Your task to perform on an android device: Search for flights from San Diego to Seattle Image 0: 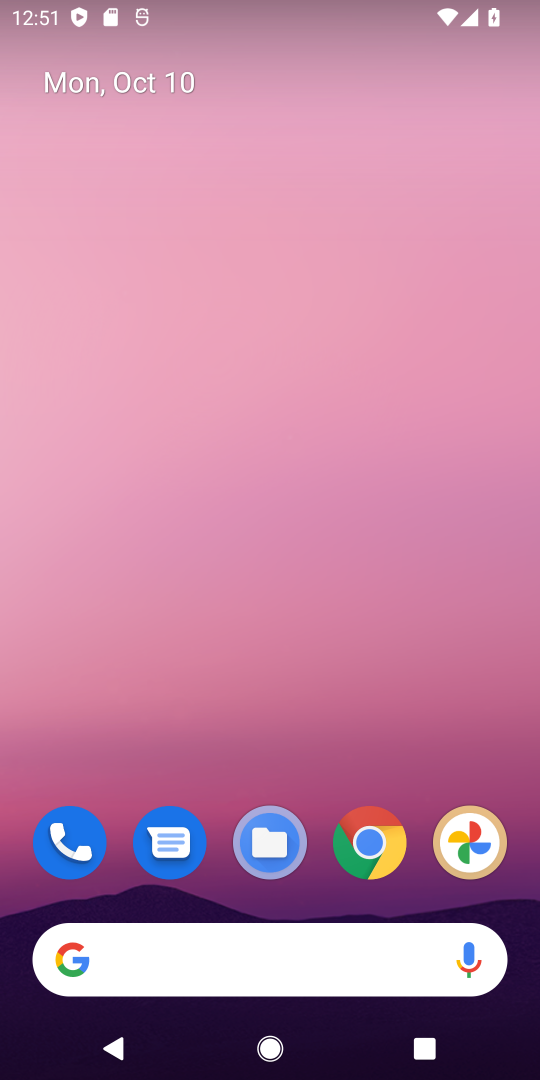
Step 0: click (374, 863)
Your task to perform on an android device: Search for flights from San Diego to Seattle Image 1: 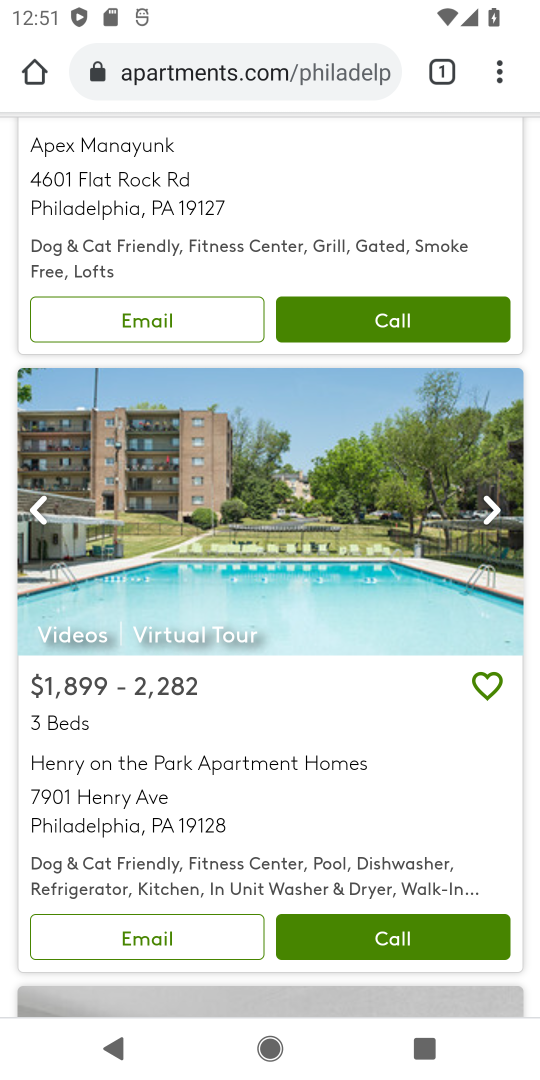
Step 1: click (214, 77)
Your task to perform on an android device: Search for flights from San Diego to Seattle Image 2: 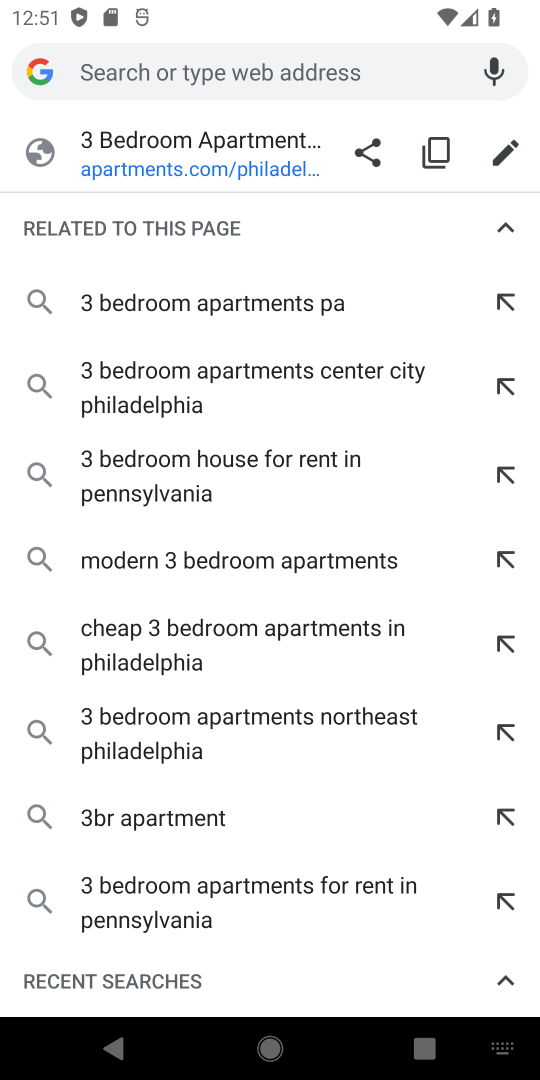
Step 2: type "flights from San Diego to Seattle"
Your task to perform on an android device: Search for flights from San Diego to Seattle Image 3: 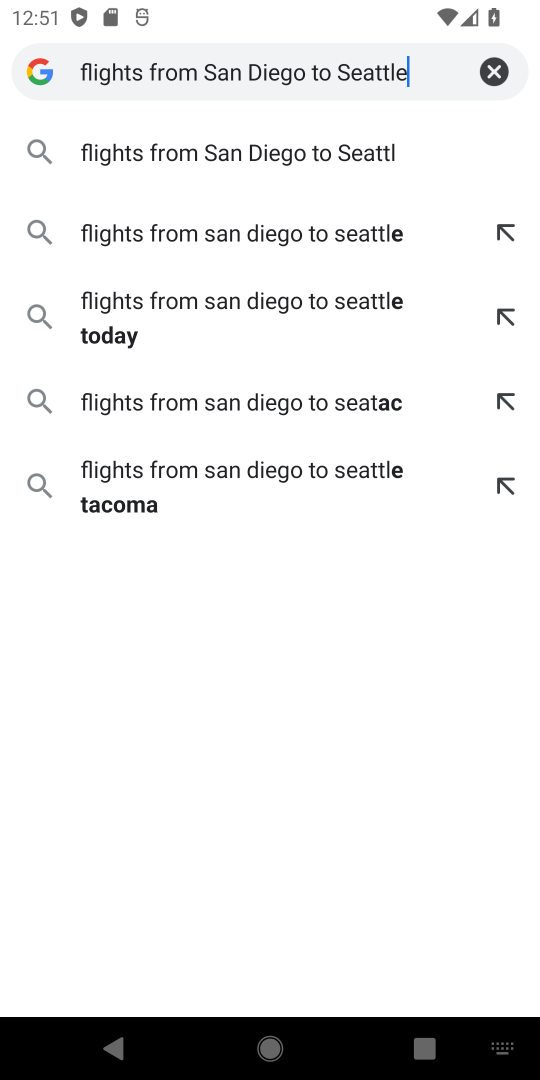
Step 3: type ""
Your task to perform on an android device: Search for flights from San Diego to Seattle Image 4: 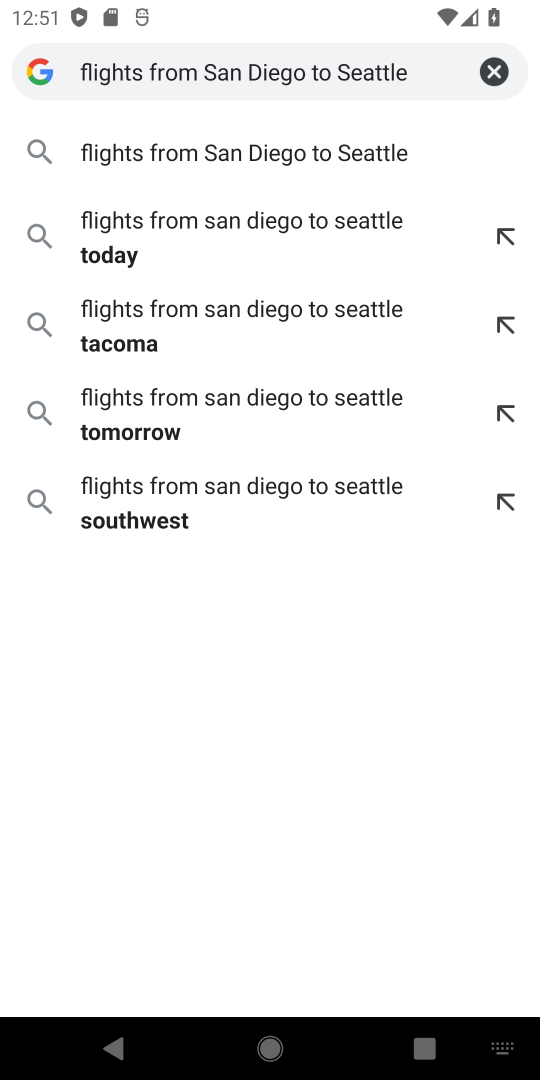
Step 4: press enter
Your task to perform on an android device: Search for flights from San Diego to Seattle Image 5: 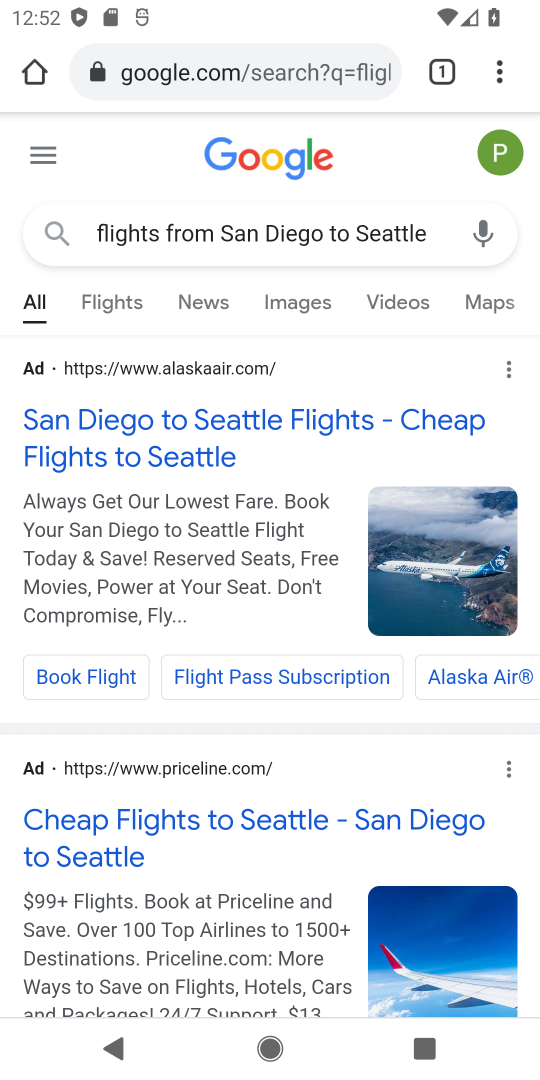
Step 5: drag from (193, 689) to (217, 376)
Your task to perform on an android device: Search for flights from San Diego to Seattle Image 6: 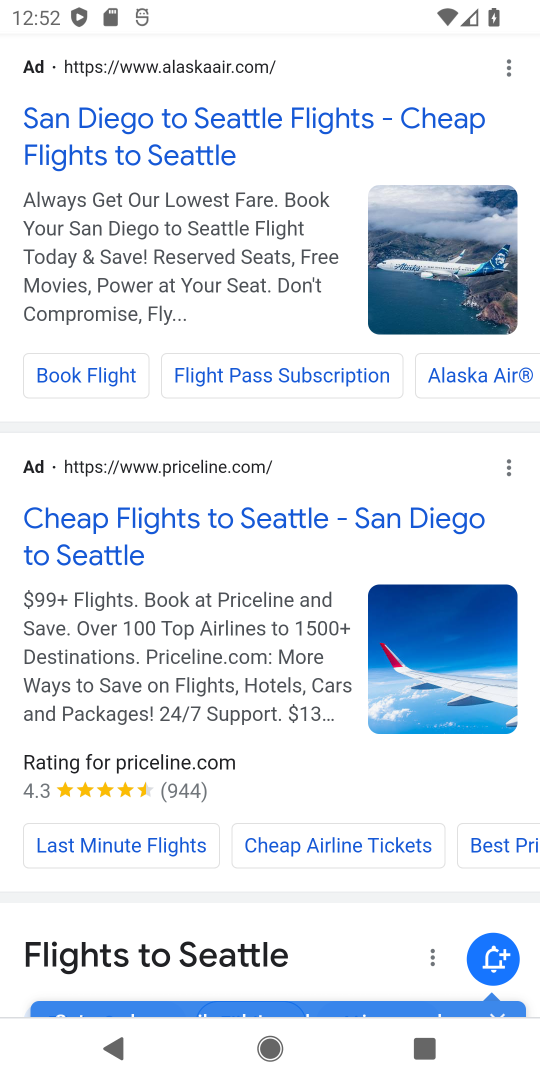
Step 6: drag from (235, 802) to (229, 236)
Your task to perform on an android device: Search for flights from San Diego to Seattle Image 7: 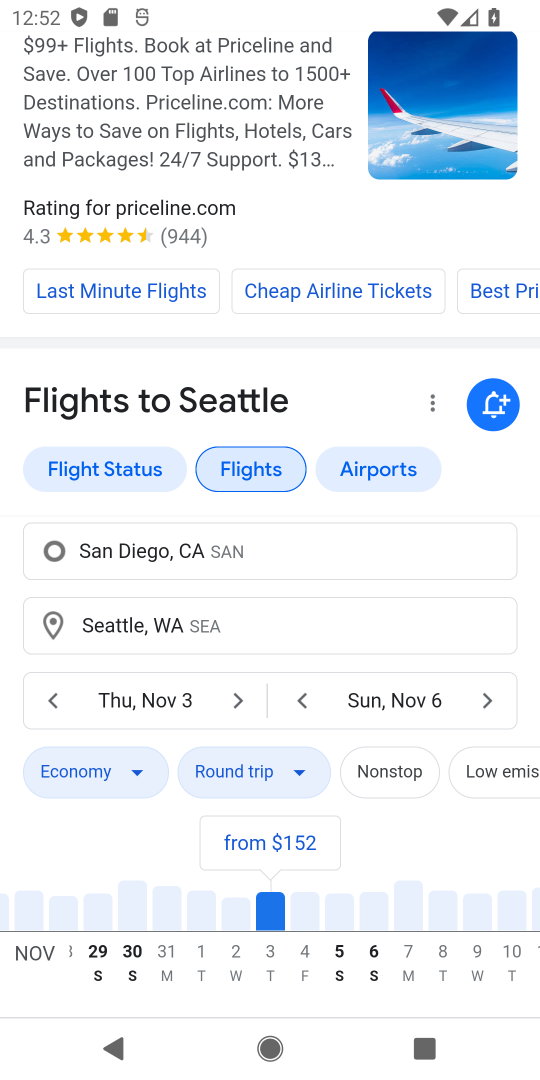
Step 7: drag from (275, 863) to (235, 260)
Your task to perform on an android device: Search for flights from San Diego to Seattle Image 8: 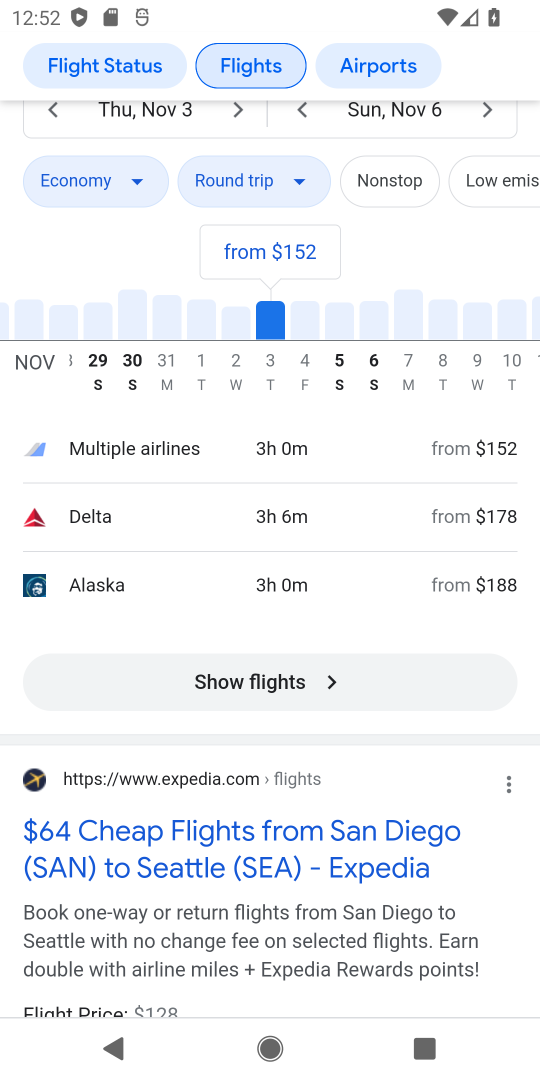
Step 8: click (220, 681)
Your task to perform on an android device: Search for flights from San Diego to Seattle Image 9: 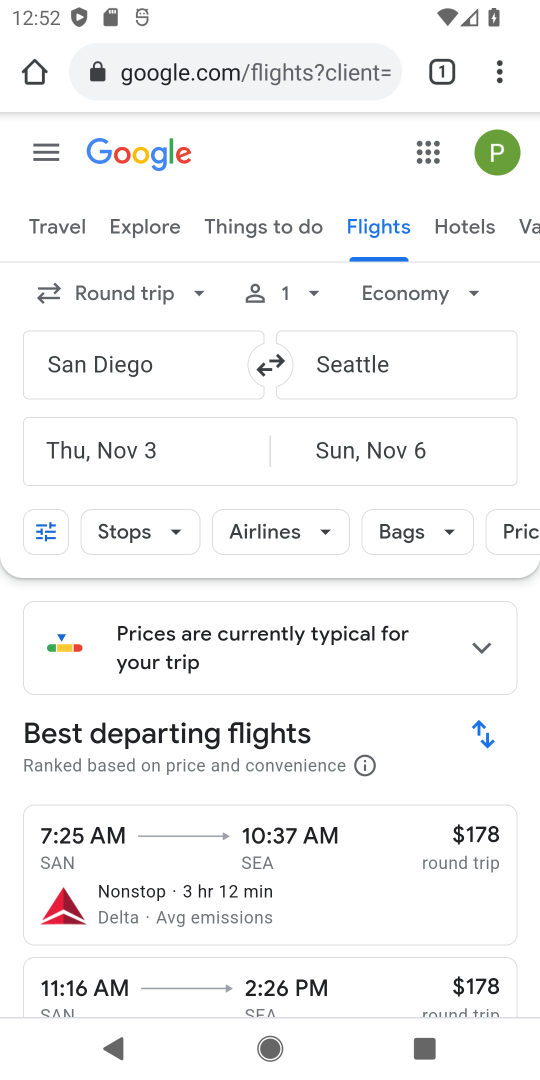
Step 9: task complete